Your task to perform on an android device: Go to settings Image 0: 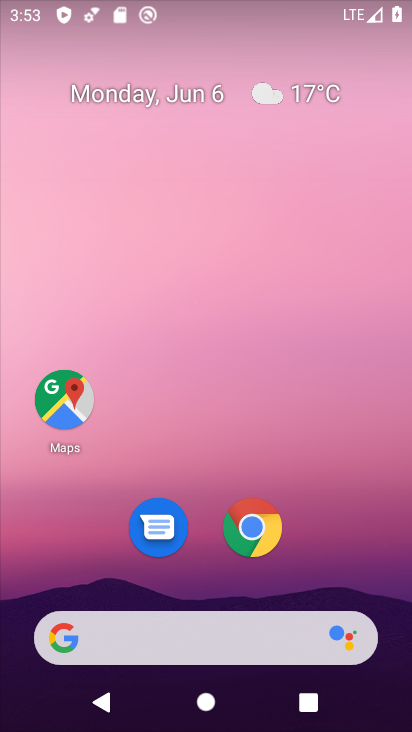
Step 0: drag from (291, 474) to (280, 212)
Your task to perform on an android device: Go to settings Image 1: 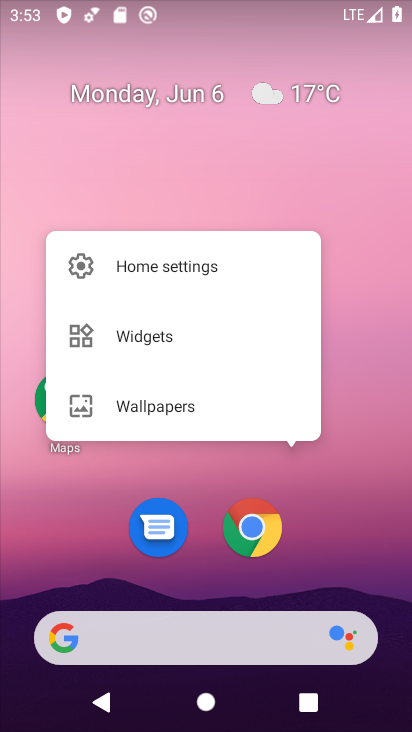
Step 1: click (371, 79)
Your task to perform on an android device: Go to settings Image 2: 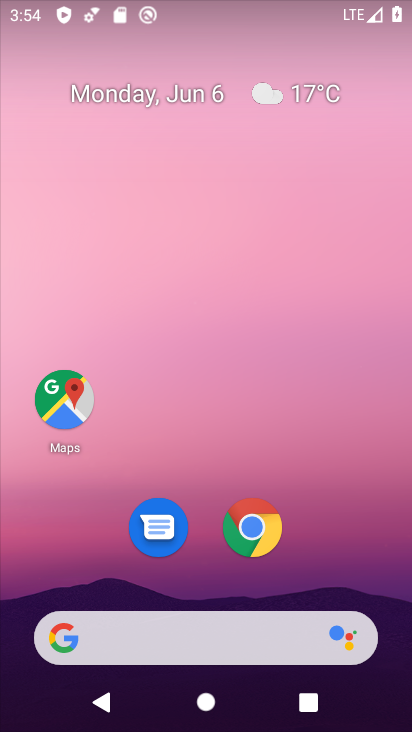
Step 2: drag from (358, 563) to (379, 248)
Your task to perform on an android device: Go to settings Image 3: 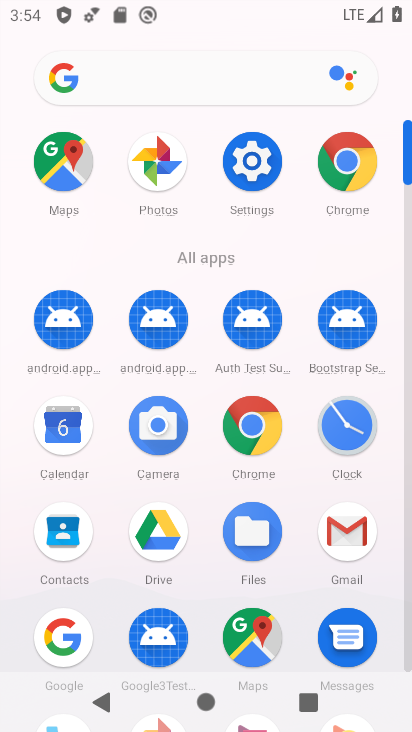
Step 3: click (247, 153)
Your task to perform on an android device: Go to settings Image 4: 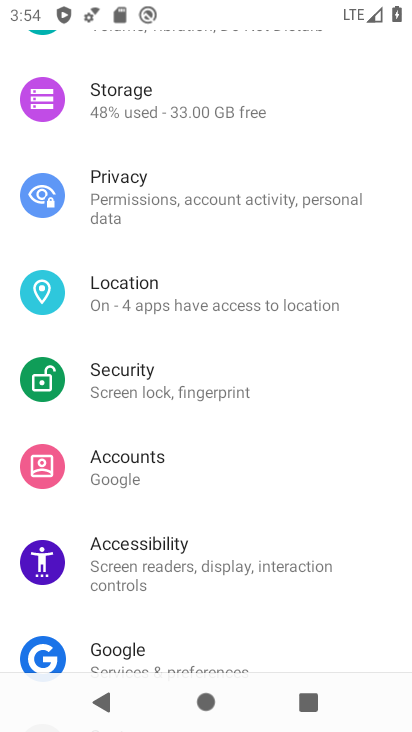
Step 4: task complete